Your task to perform on an android device: search for starred emails in the gmail app Image 0: 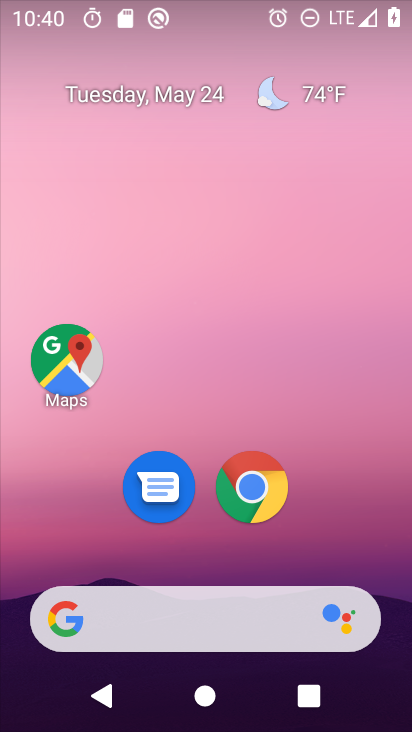
Step 0: drag from (363, 537) to (239, 7)
Your task to perform on an android device: search for starred emails in the gmail app Image 1: 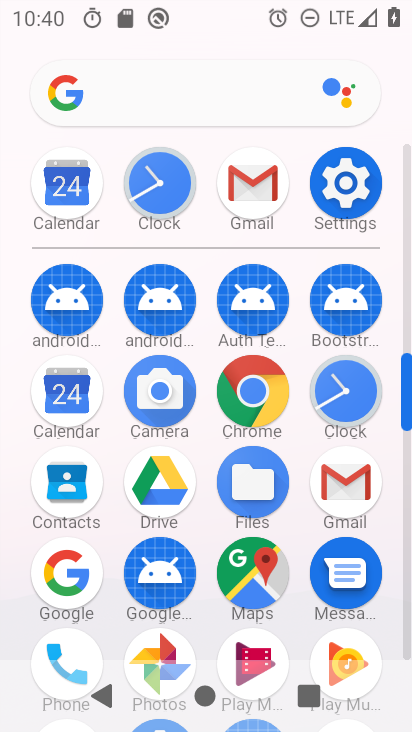
Step 1: click (257, 192)
Your task to perform on an android device: search for starred emails in the gmail app Image 2: 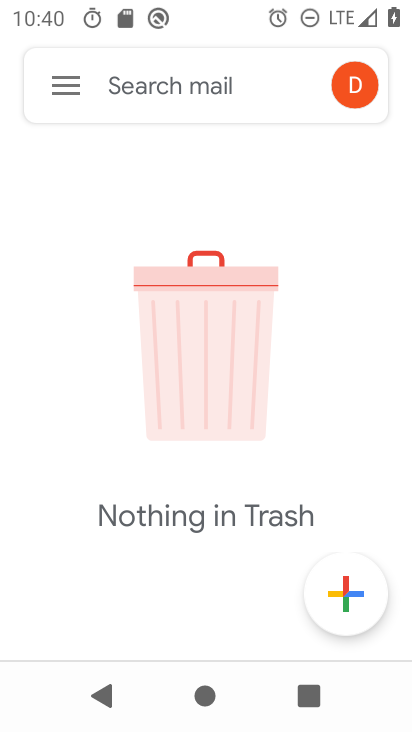
Step 2: click (48, 85)
Your task to perform on an android device: search for starred emails in the gmail app Image 3: 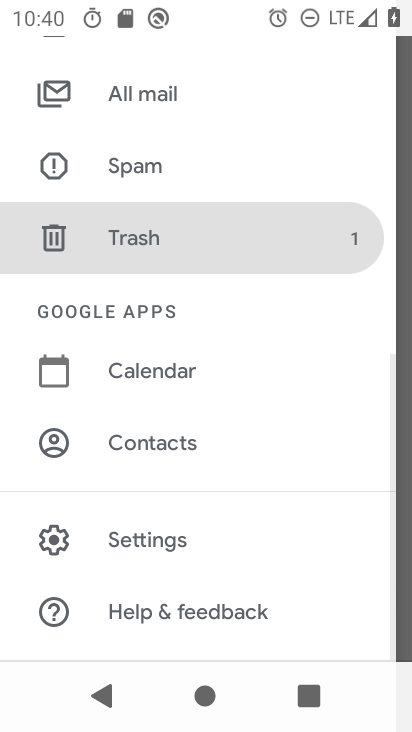
Step 3: drag from (228, 217) to (270, 728)
Your task to perform on an android device: search for starred emails in the gmail app Image 4: 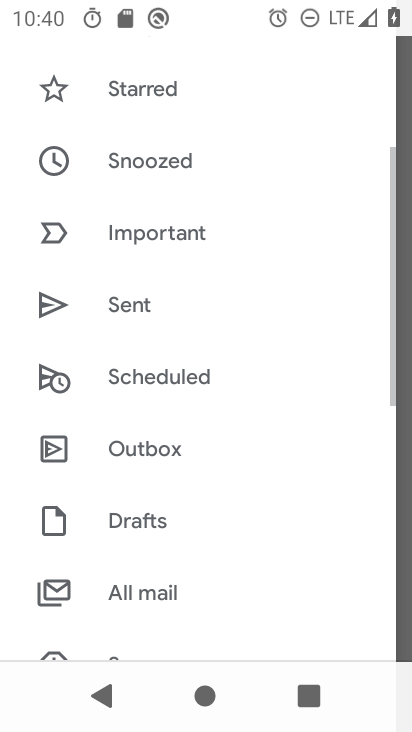
Step 4: click (133, 88)
Your task to perform on an android device: search for starred emails in the gmail app Image 5: 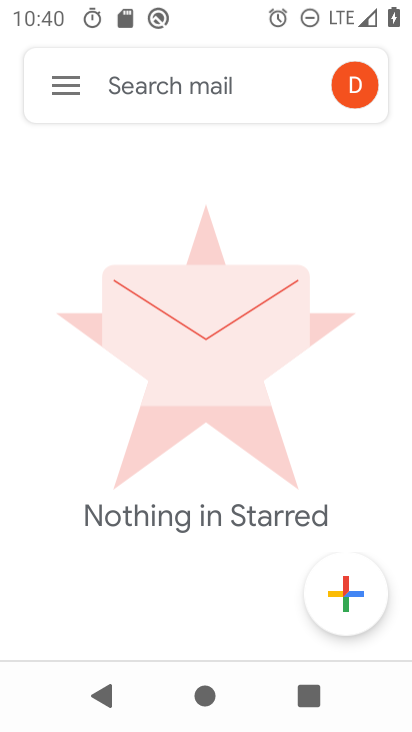
Step 5: task complete